Your task to perform on an android device: Go to eBay Image 0: 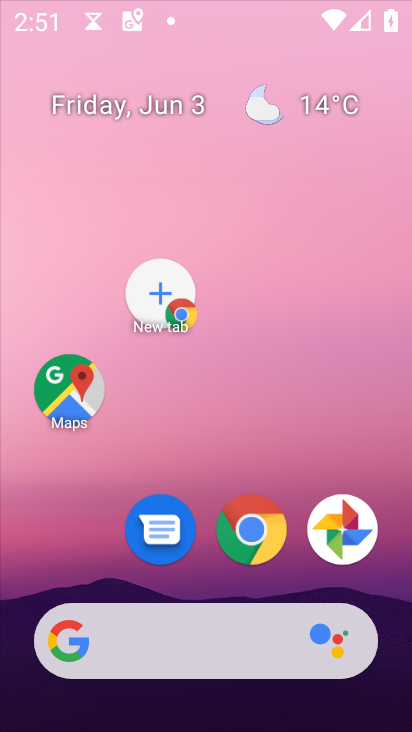
Step 0: click (406, 367)
Your task to perform on an android device: Go to eBay Image 1: 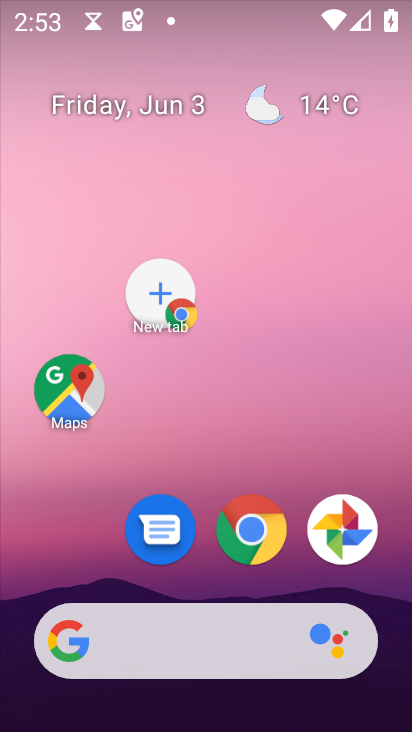
Step 1: drag from (287, 693) to (163, 41)
Your task to perform on an android device: Go to eBay Image 2: 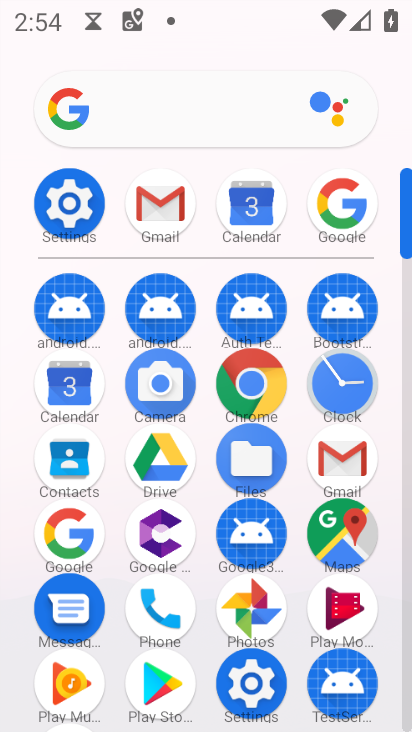
Step 2: click (233, 377)
Your task to perform on an android device: Go to eBay Image 3: 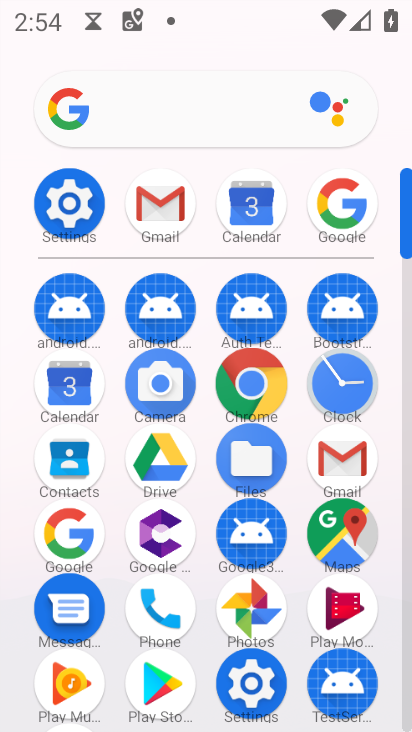
Step 3: click (233, 377)
Your task to perform on an android device: Go to eBay Image 4: 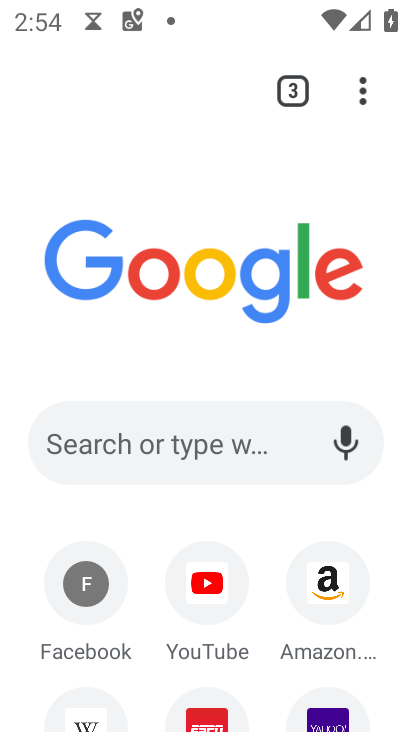
Step 4: click (58, 442)
Your task to perform on an android device: Go to eBay Image 5: 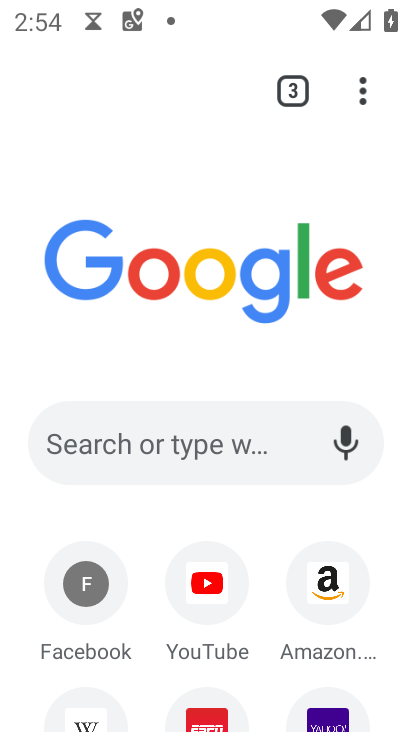
Step 5: click (58, 442)
Your task to perform on an android device: Go to eBay Image 6: 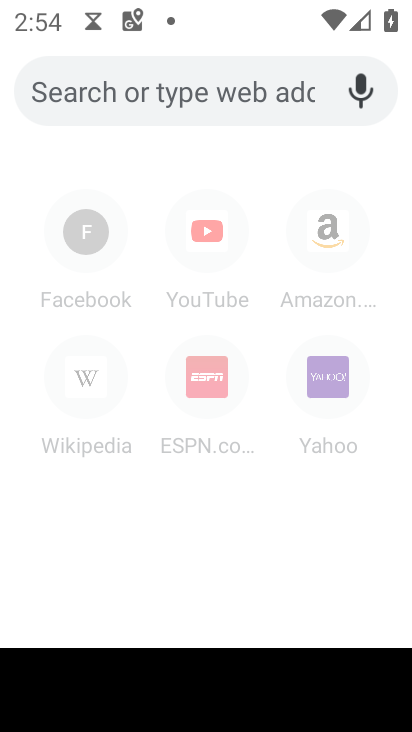
Step 6: click (68, 447)
Your task to perform on an android device: Go to eBay Image 7: 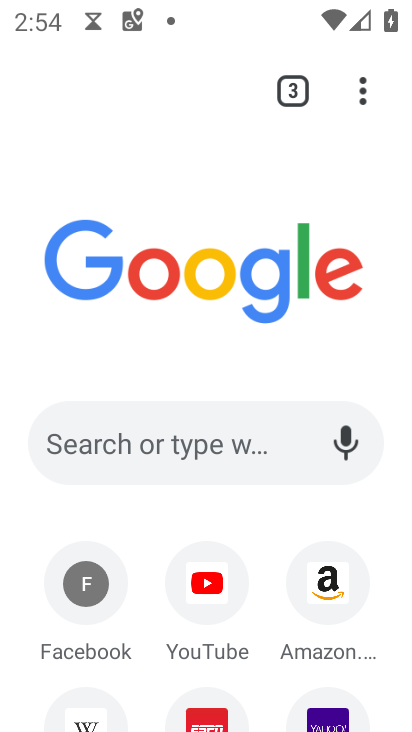
Step 7: click (75, 431)
Your task to perform on an android device: Go to eBay Image 8: 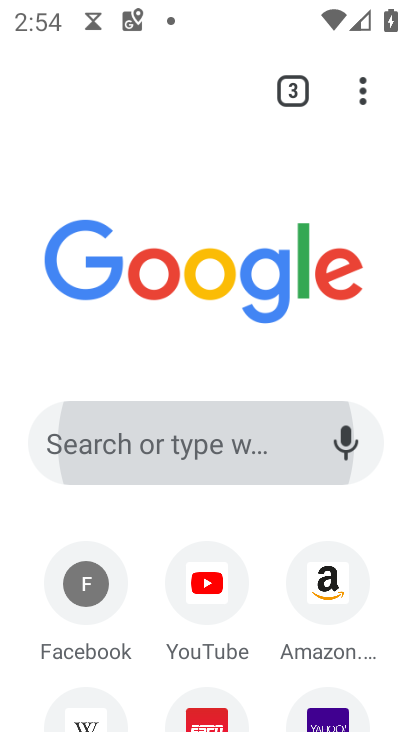
Step 8: click (71, 434)
Your task to perform on an android device: Go to eBay Image 9: 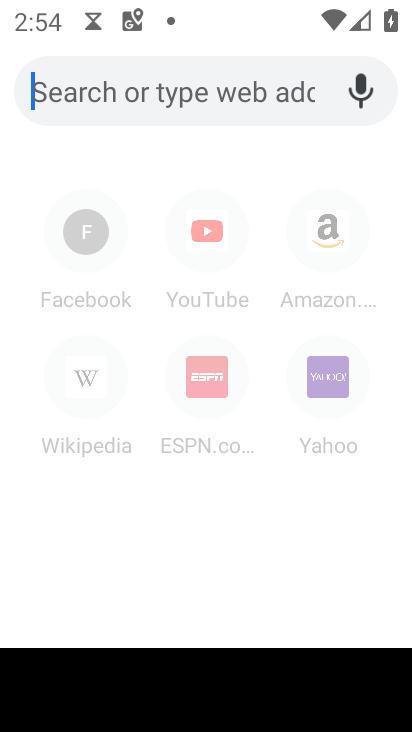
Step 9: type "ebay.com"
Your task to perform on an android device: Go to eBay Image 10: 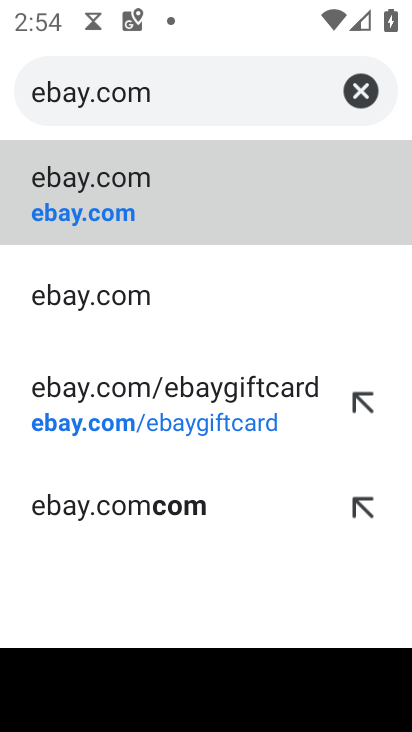
Step 10: click (78, 207)
Your task to perform on an android device: Go to eBay Image 11: 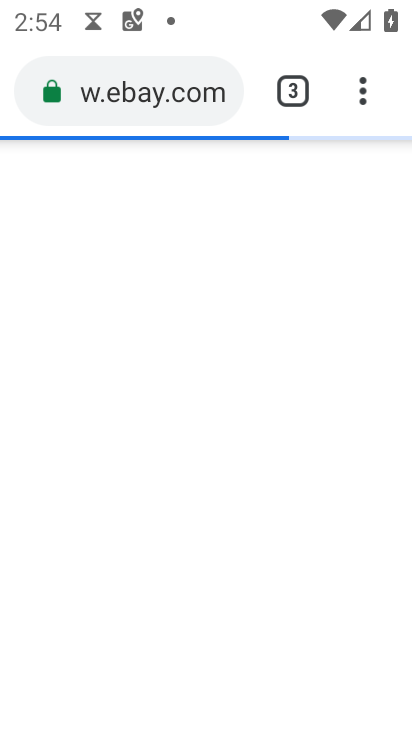
Step 11: task complete